Your task to perform on an android device: Go to calendar. Show me events next week Image 0: 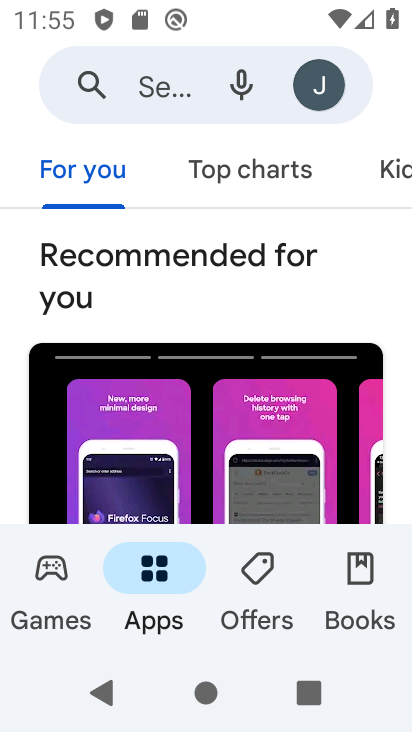
Step 0: press home button
Your task to perform on an android device: Go to calendar. Show me events next week Image 1: 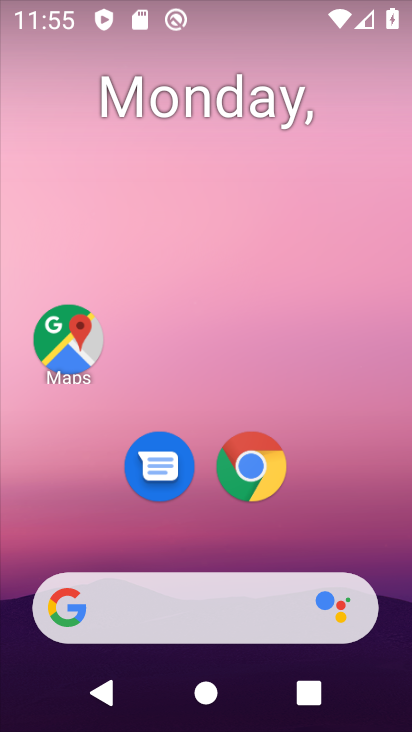
Step 1: drag from (273, 567) to (248, 208)
Your task to perform on an android device: Go to calendar. Show me events next week Image 2: 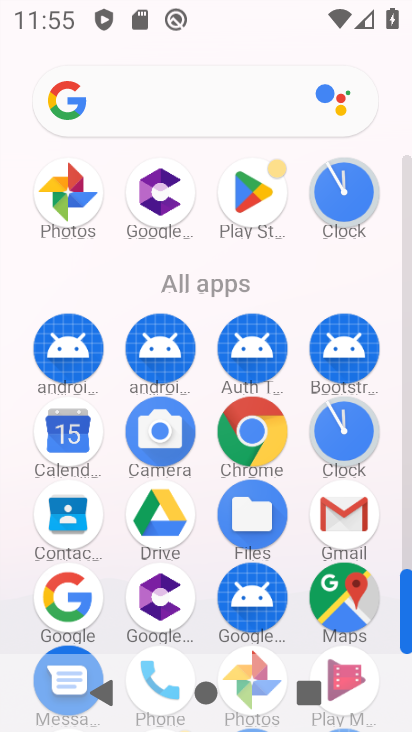
Step 2: click (62, 440)
Your task to perform on an android device: Go to calendar. Show me events next week Image 3: 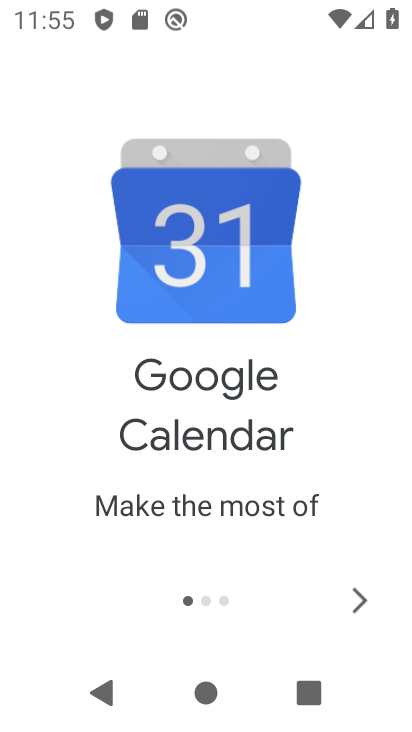
Step 3: click (360, 600)
Your task to perform on an android device: Go to calendar. Show me events next week Image 4: 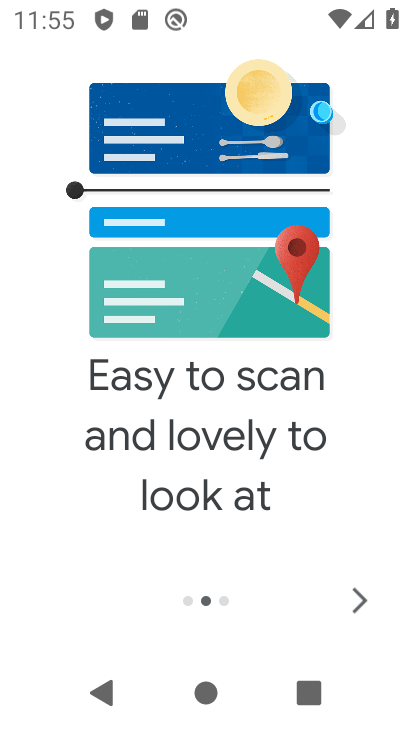
Step 4: click (353, 591)
Your task to perform on an android device: Go to calendar. Show me events next week Image 5: 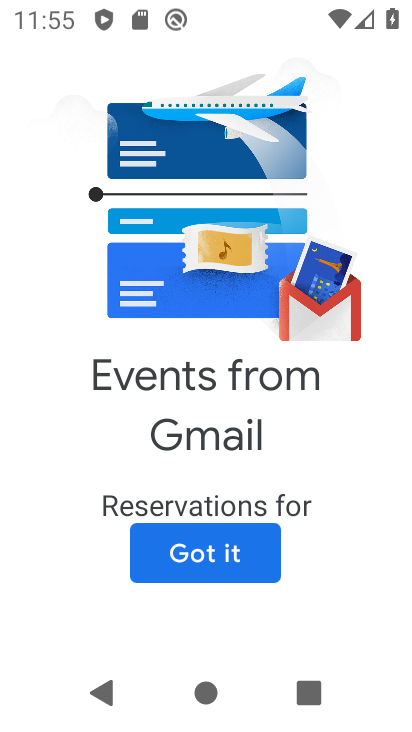
Step 5: click (249, 548)
Your task to perform on an android device: Go to calendar. Show me events next week Image 6: 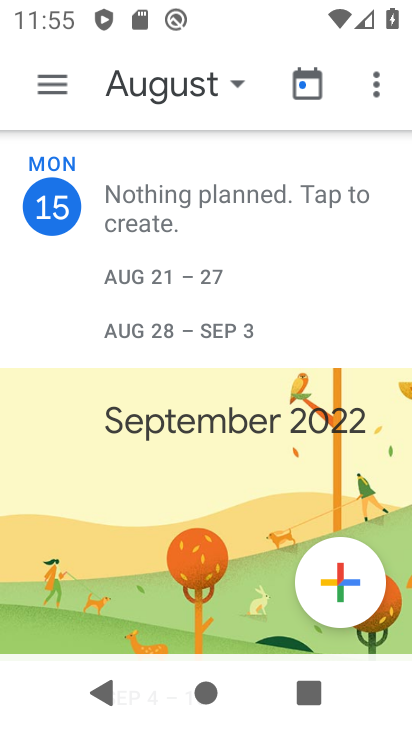
Step 6: click (44, 87)
Your task to perform on an android device: Go to calendar. Show me events next week Image 7: 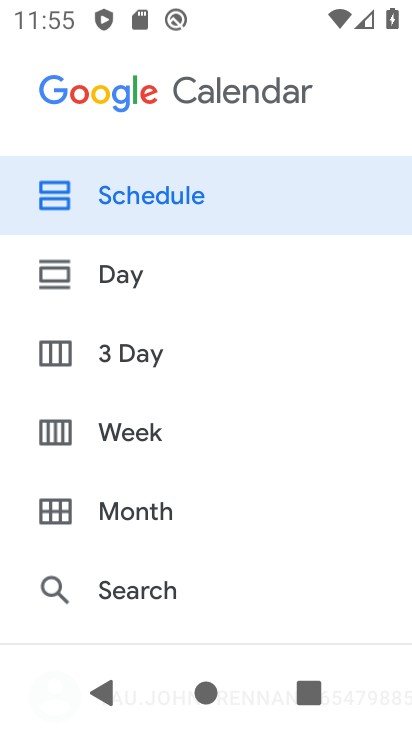
Step 7: click (161, 434)
Your task to perform on an android device: Go to calendar. Show me events next week Image 8: 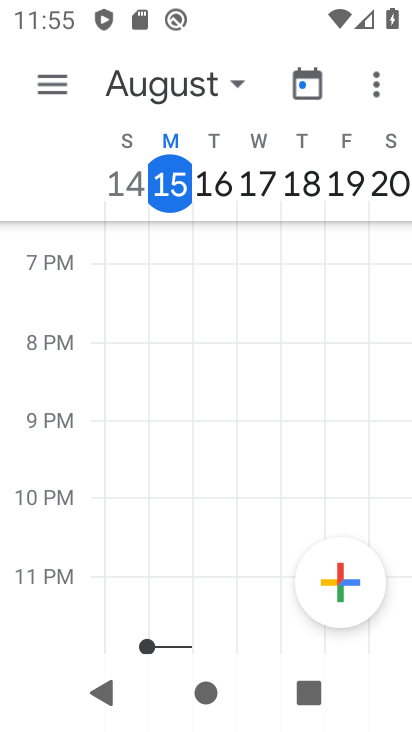
Step 8: task complete